Your task to perform on an android device: Go to sound settings Image 0: 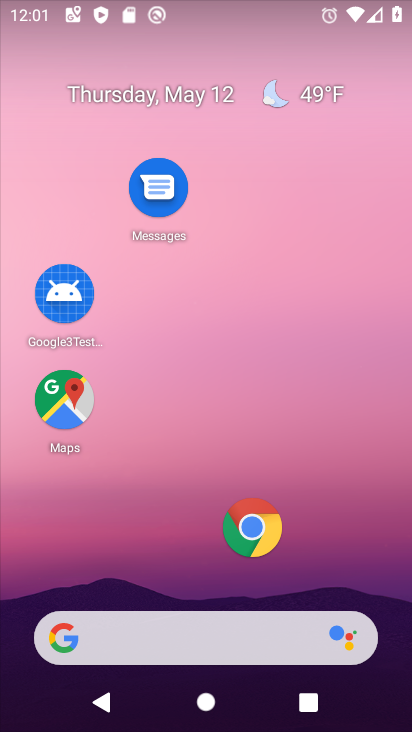
Step 0: drag from (219, 614) to (298, 712)
Your task to perform on an android device: Go to sound settings Image 1: 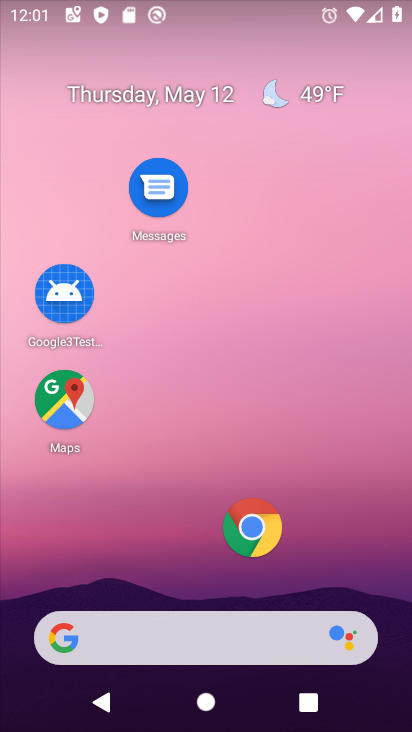
Step 1: click (339, 181)
Your task to perform on an android device: Go to sound settings Image 2: 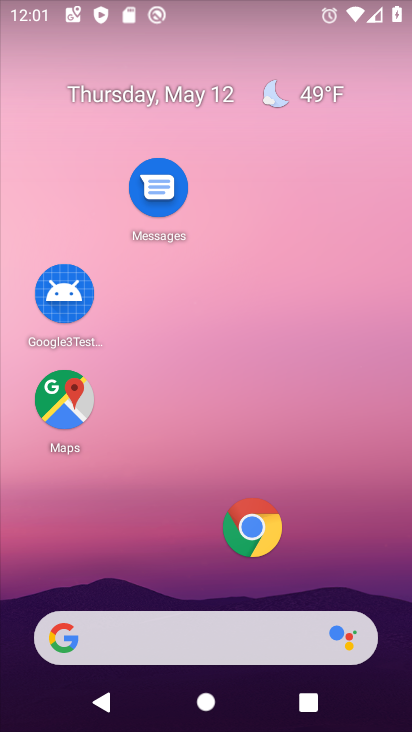
Step 2: drag from (198, 607) to (394, 18)
Your task to perform on an android device: Go to sound settings Image 3: 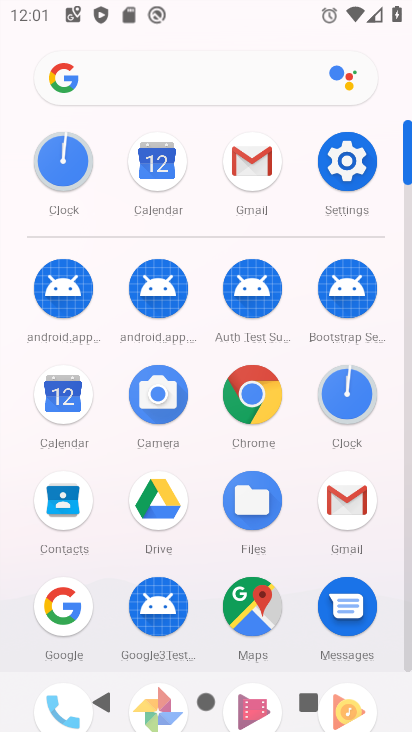
Step 3: click (355, 157)
Your task to perform on an android device: Go to sound settings Image 4: 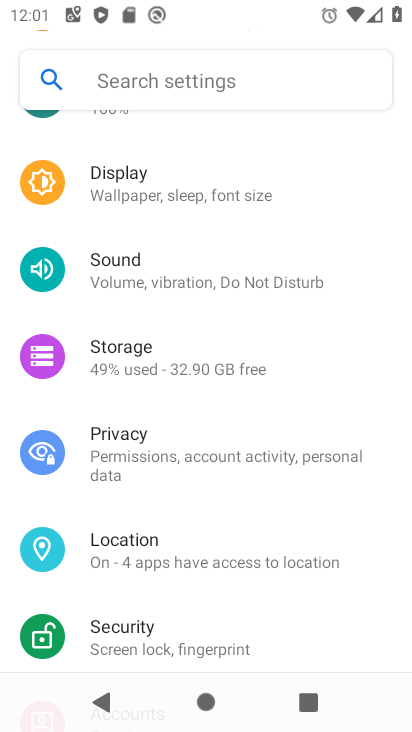
Step 4: click (148, 268)
Your task to perform on an android device: Go to sound settings Image 5: 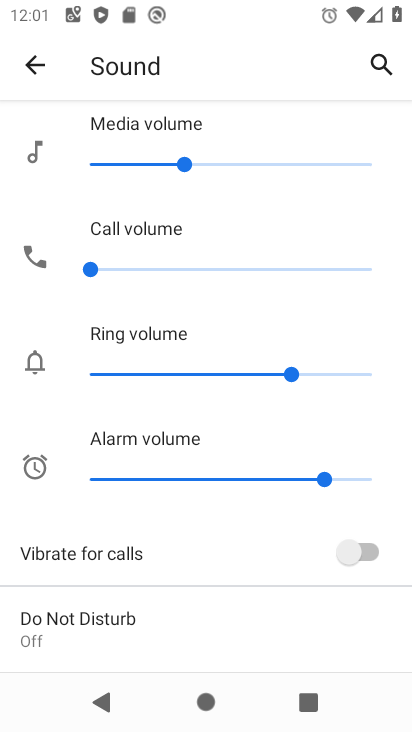
Step 5: task complete